Your task to perform on an android device: Turn on the flashlight Image 0: 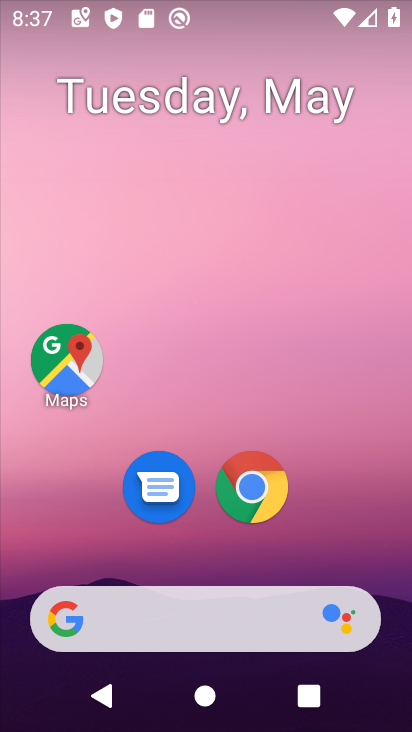
Step 0: drag from (242, 8) to (255, 328)
Your task to perform on an android device: Turn on the flashlight Image 1: 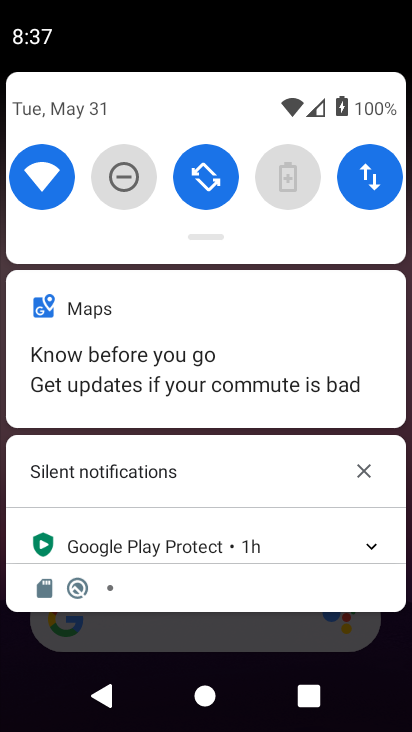
Step 1: drag from (244, 101) to (241, 409)
Your task to perform on an android device: Turn on the flashlight Image 2: 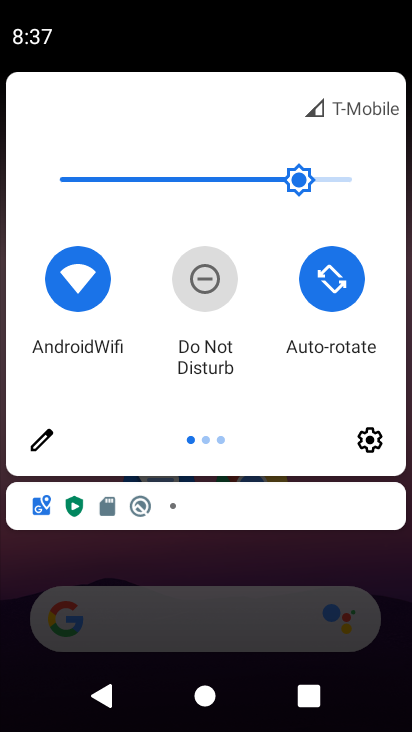
Step 2: click (46, 450)
Your task to perform on an android device: Turn on the flashlight Image 3: 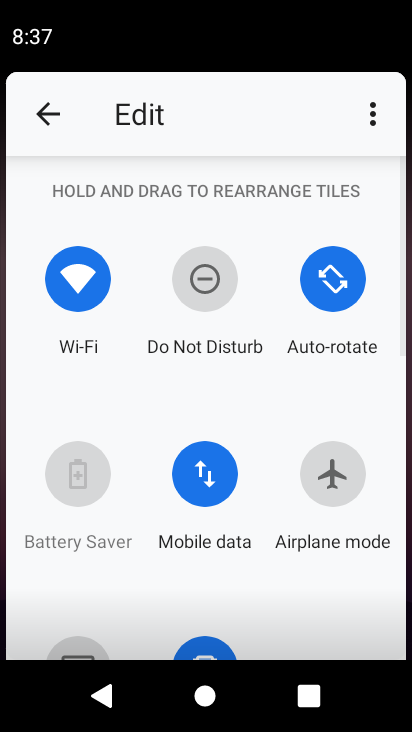
Step 3: task complete